Your task to perform on an android device: find photos in the google photos app Image 0: 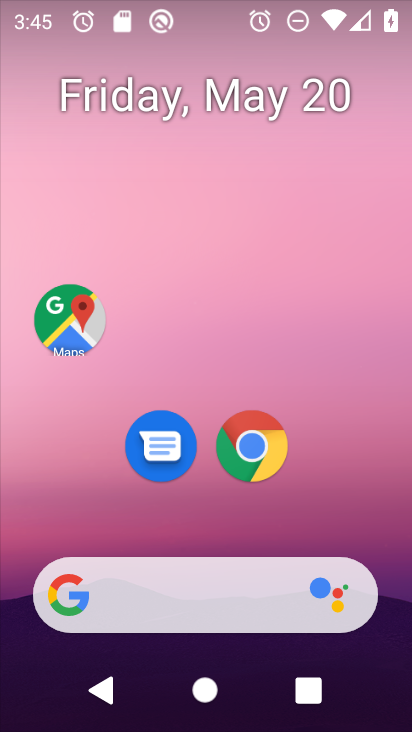
Step 0: drag from (377, 541) to (406, 34)
Your task to perform on an android device: find photos in the google photos app Image 1: 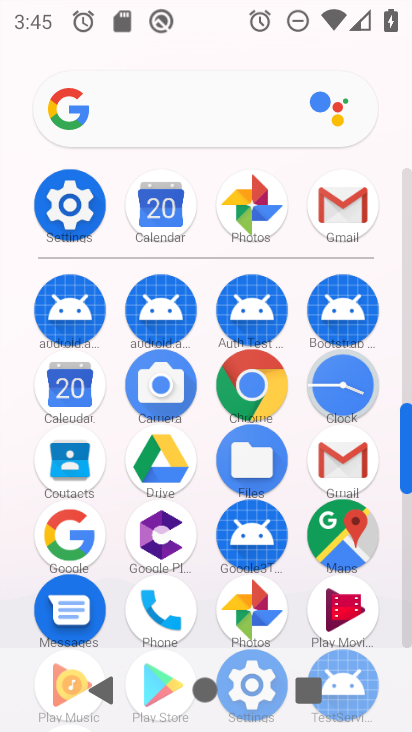
Step 1: click (248, 206)
Your task to perform on an android device: find photos in the google photos app Image 2: 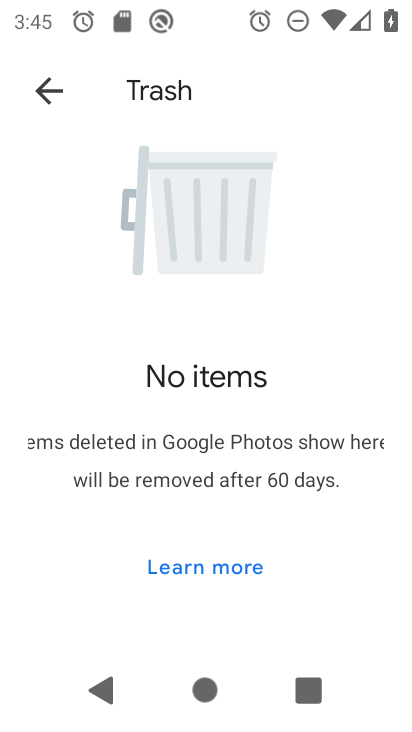
Step 2: click (48, 93)
Your task to perform on an android device: find photos in the google photos app Image 3: 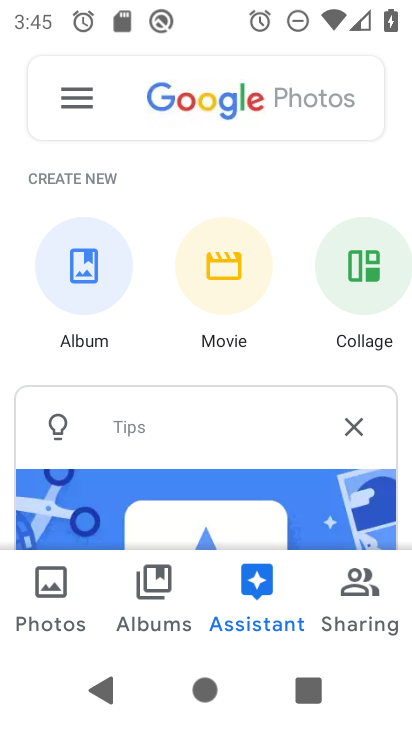
Step 3: click (34, 593)
Your task to perform on an android device: find photos in the google photos app Image 4: 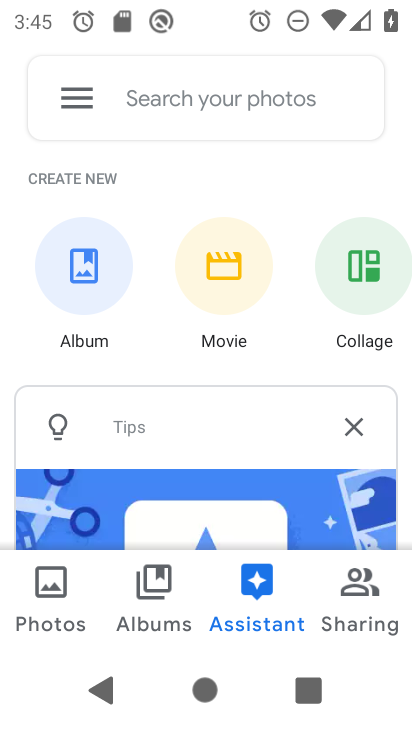
Step 4: drag from (194, 494) to (203, 370)
Your task to perform on an android device: find photos in the google photos app Image 5: 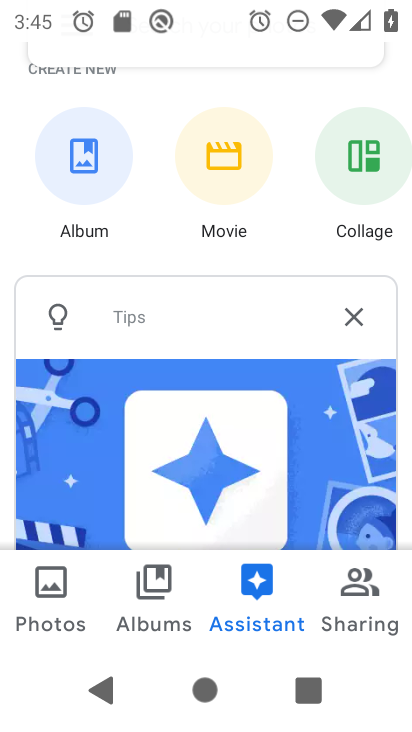
Step 5: click (64, 615)
Your task to perform on an android device: find photos in the google photos app Image 6: 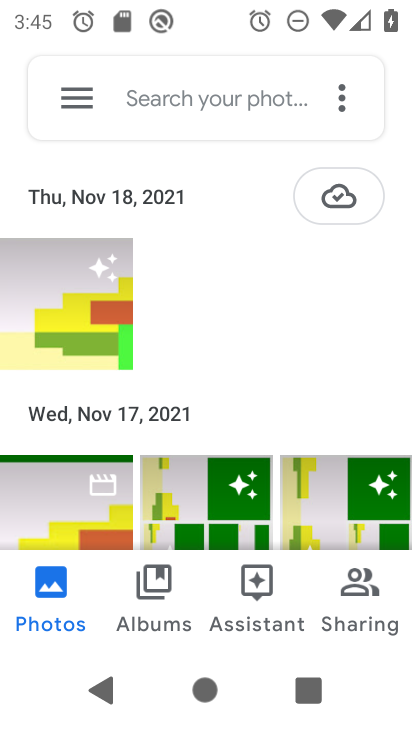
Step 6: task complete